Your task to perform on an android device: Open the map Image 0: 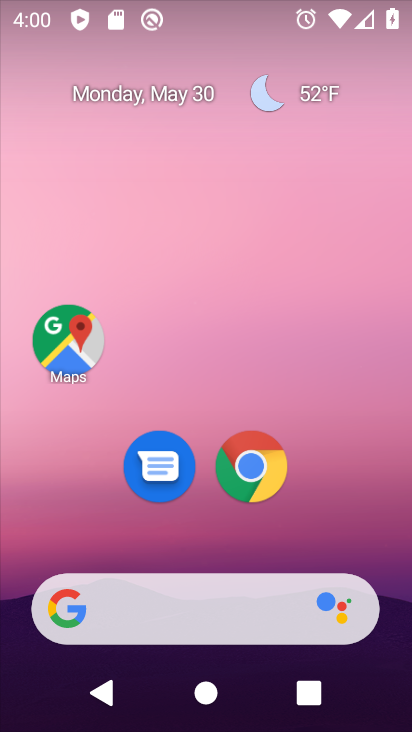
Step 0: click (68, 345)
Your task to perform on an android device: Open the map Image 1: 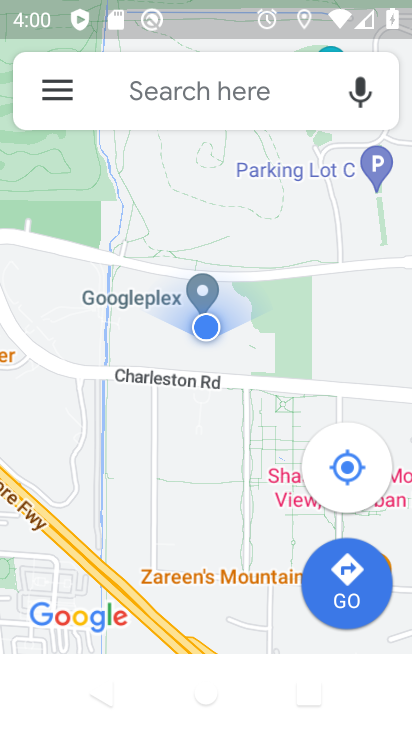
Step 1: task complete